Your task to perform on an android device: turn off location Image 0: 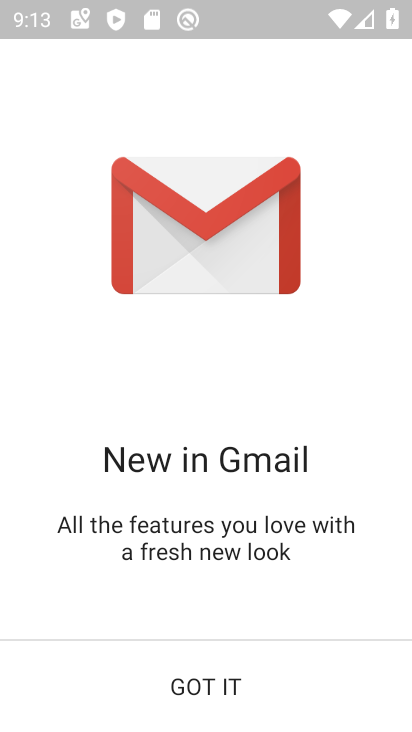
Step 0: press home button
Your task to perform on an android device: turn off location Image 1: 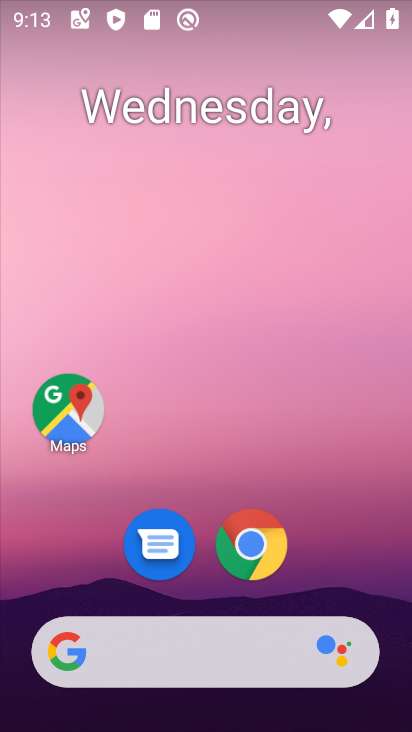
Step 1: drag from (185, 595) to (330, 5)
Your task to perform on an android device: turn off location Image 2: 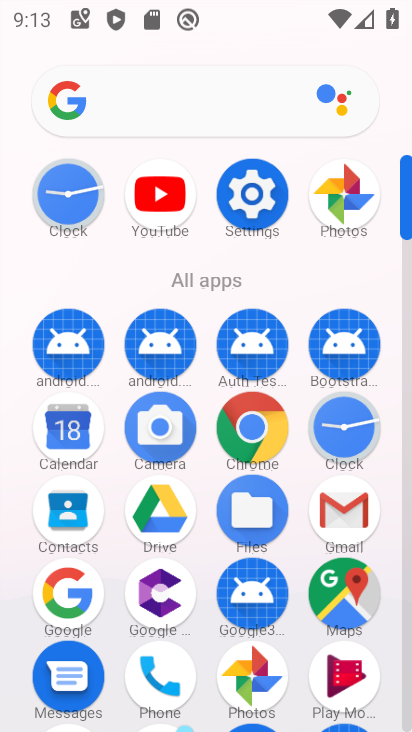
Step 2: click (238, 173)
Your task to perform on an android device: turn off location Image 3: 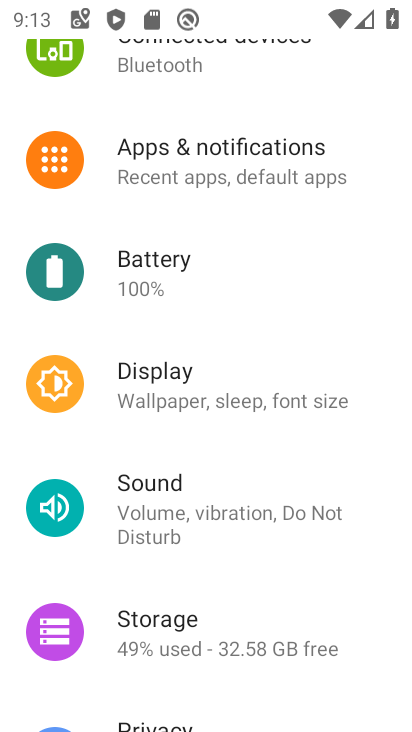
Step 3: drag from (238, 173) to (197, 651)
Your task to perform on an android device: turn off location Image 4: 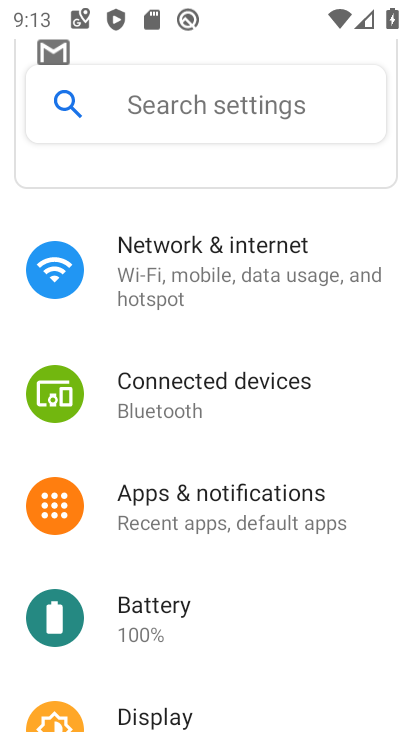
Step 4: drag from (119, 569) to (206, 91)
Your task to perform on an android device: turn off location Image 5: 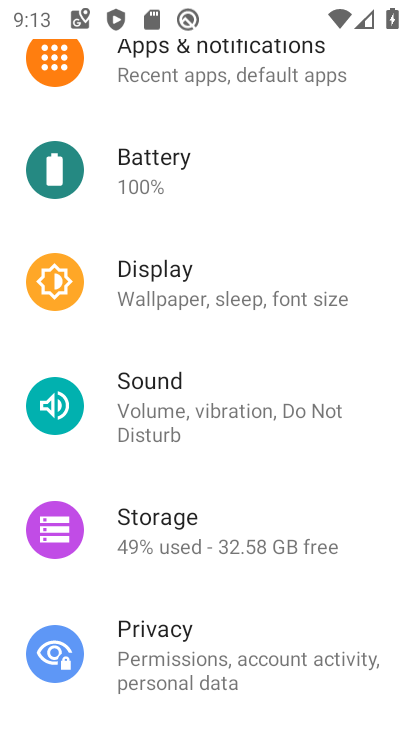
Step 5: drag from (139, 646) to (166, 247)
Your task to perform on an android device: turn off location Image 6: 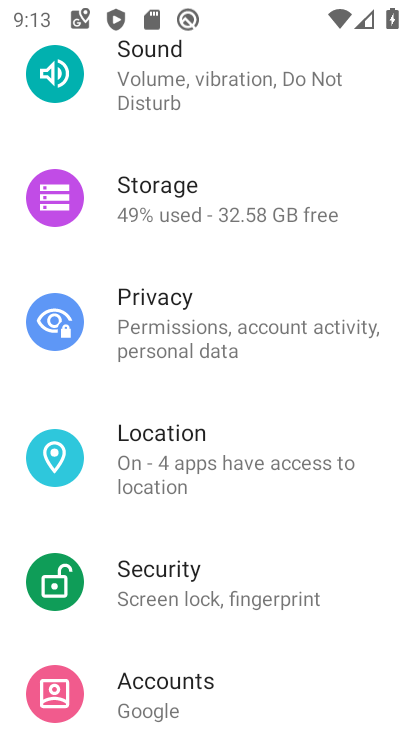
Step 6: click (155, 462)
Your task to perform on an android device: turn off location Image 7: 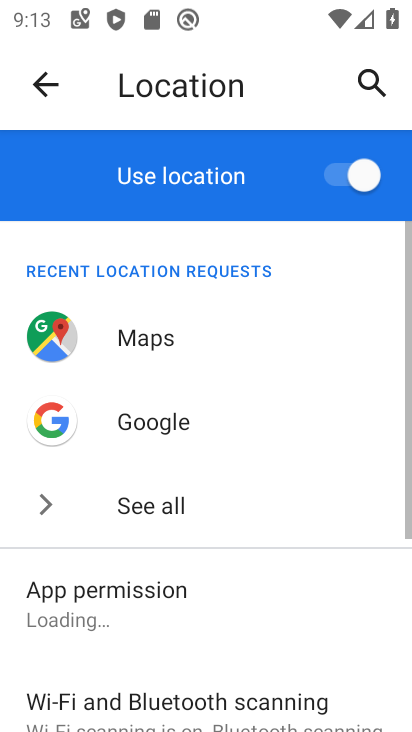
Step 7: click (344, 180)
Your task to perform on an android device: turn off location Image 8: 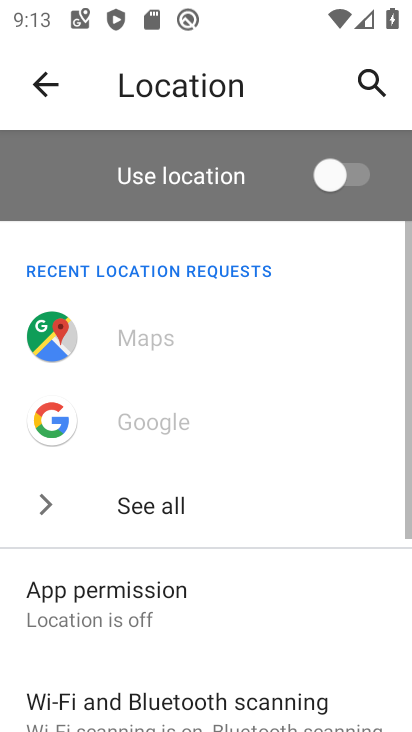
Step 8: task complete